Your task to perform on an android device: Open calendar and show me the fourth week of next month Image 0: 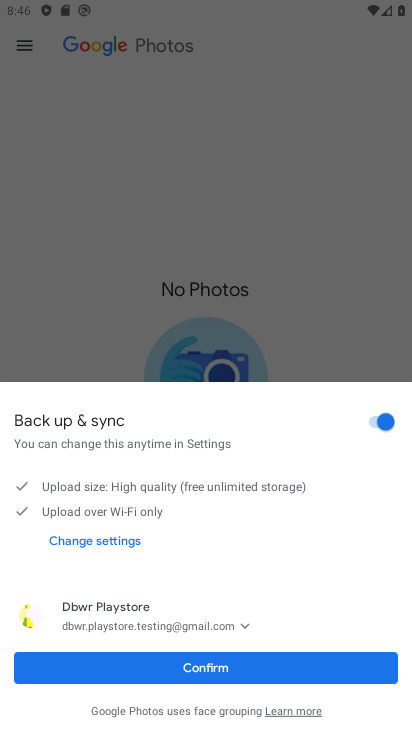
Step 0: press home button
Your task to perform on an android device: Open calendar and show me the fourth week of next month Image 1: 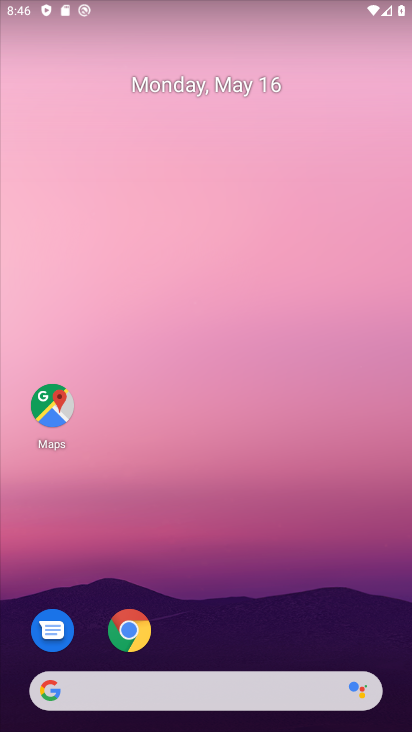
Step 1: drag from (190, 660) to (244, 164)
Your task to perform on an android device: Open calendar and show me the fourth week of next month Image 2: 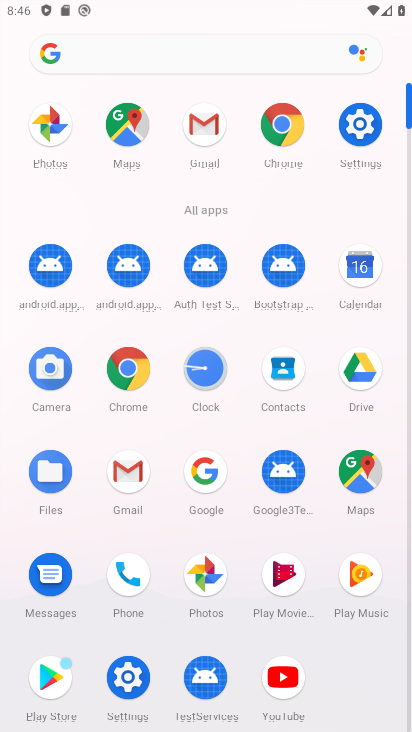
Step 2: click (360, 280)
Your task to perform on an android device: Open calendar and show me the fourth week of next month Image 3: 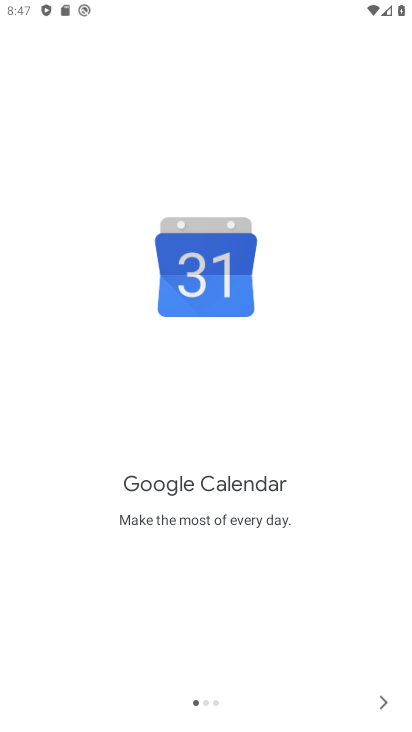
Step 3: click (387, 705)
Your task to perform on an android device: Open calendar and show me the fourth week of next month Image 4: 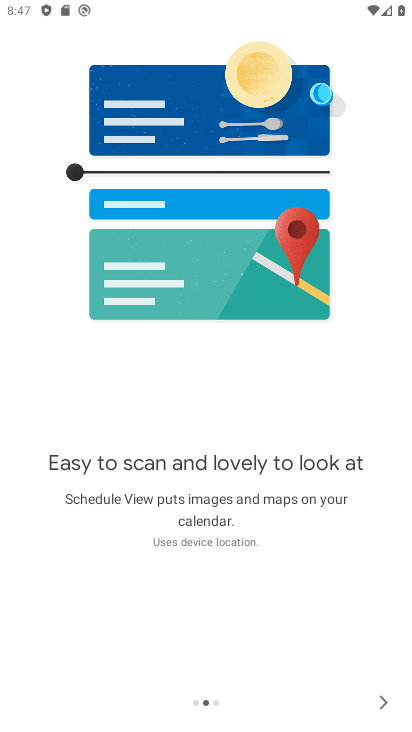
Step 4: click (386, 705)
Your task to perform on an android device: Open calendar and show me the fourth week of next month Image 5: 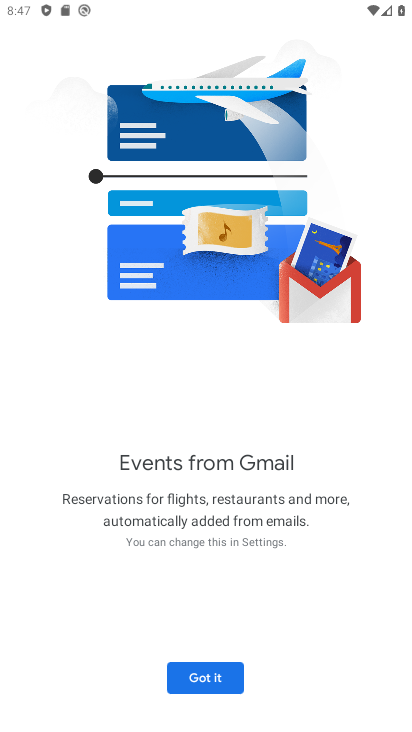
Step 5: click (206, 675)
Your task to perform on an android device: Open calendar and show me the fourth week of next month Image 6: 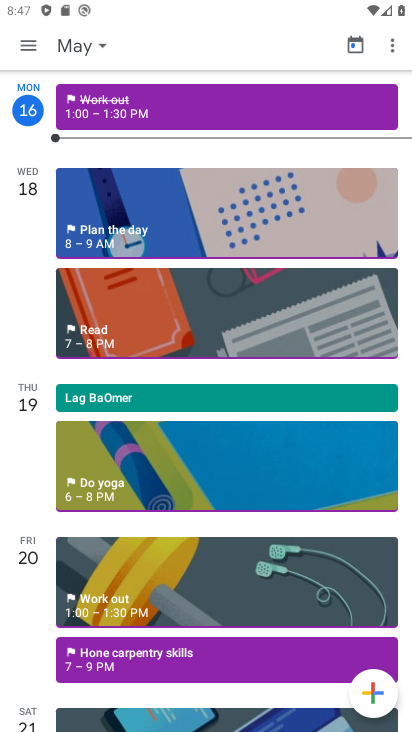
Step 6: click (95, 52)
Your task to perform on an android device: Open calendar and show me the fourth week of next month Image 7: 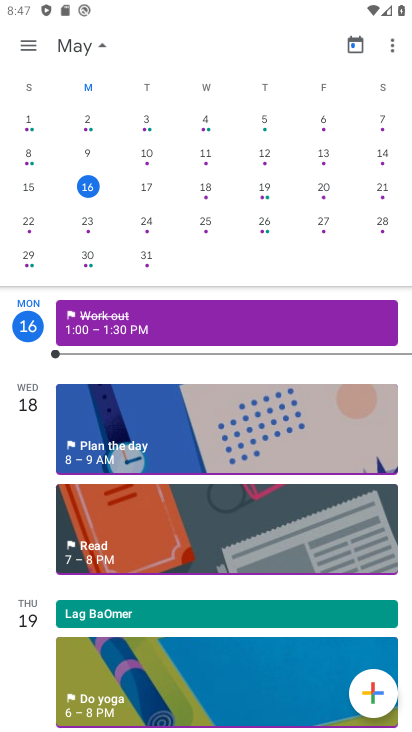
Step 7: drag from (397, 266) to (28, 228)
Your task to perform on an android device: Open calendar and show me the fourth week of next month Image 8: 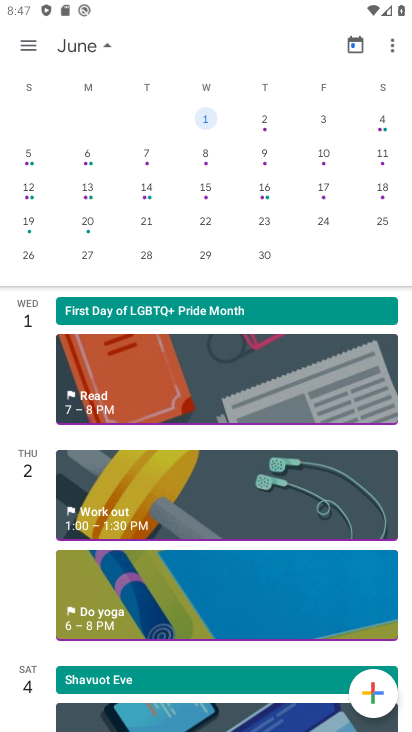
Step 8: click (31, 262)
Your task to perform on an android device: Open calendar and show me the fourth week of next month Image 9: 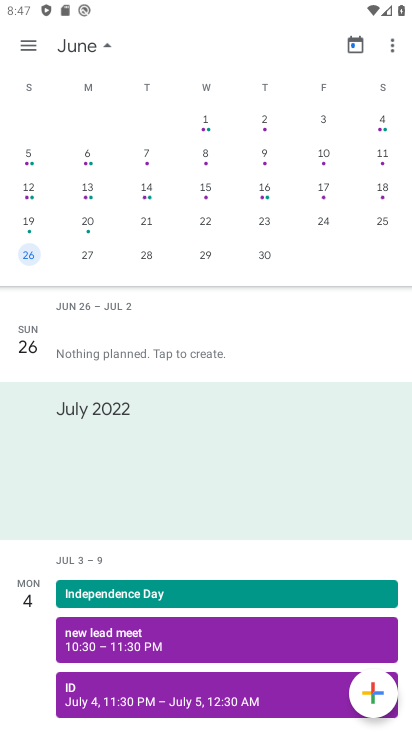
Step 9: click (94, 51)
Your task to perform on an android device: Open calendar and show me the fourth week of next month Image 10: 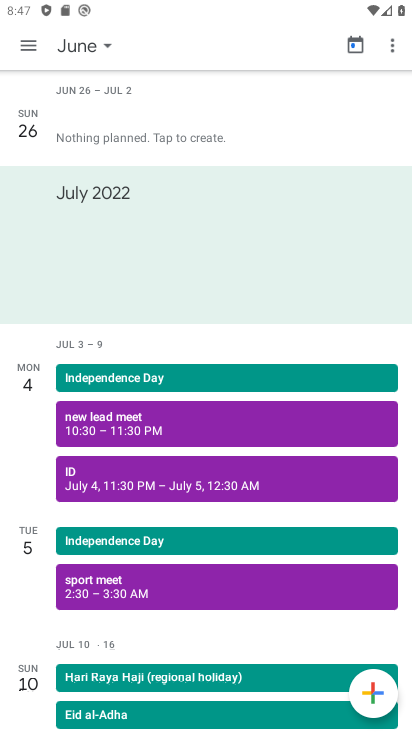
Step 10: click (26, 43)
Your task to perform on an android device: Open calendar and show me the fourth week of next month Image 11: 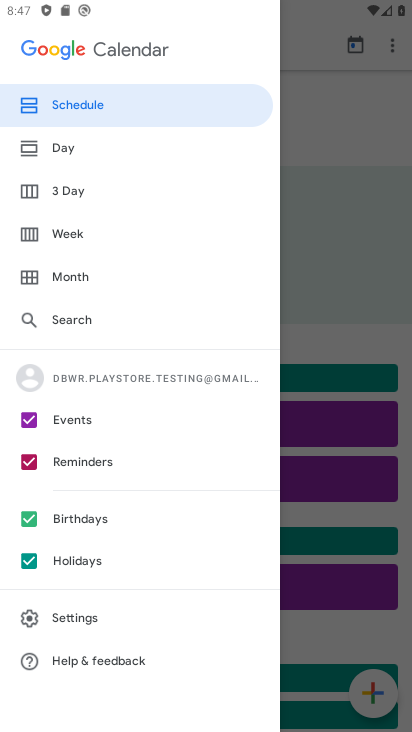
Step 11: click (97, 251)
Your task to perform on an android device: Open calendar and show me the fourth week of next month Image 12: 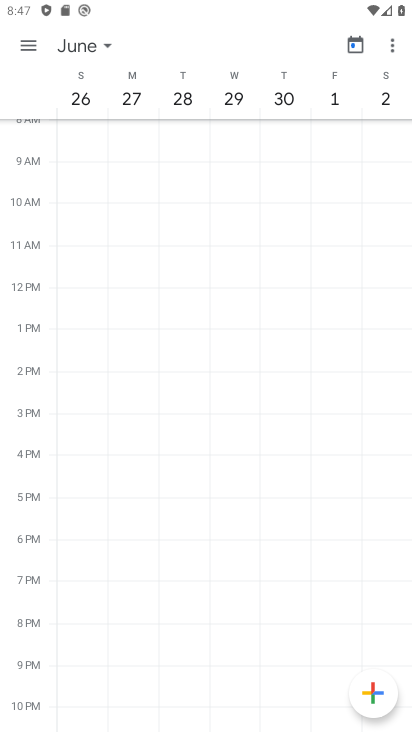
Step 12: task complete